Your task to perform on an android device: Do I have any events today? Image 0: 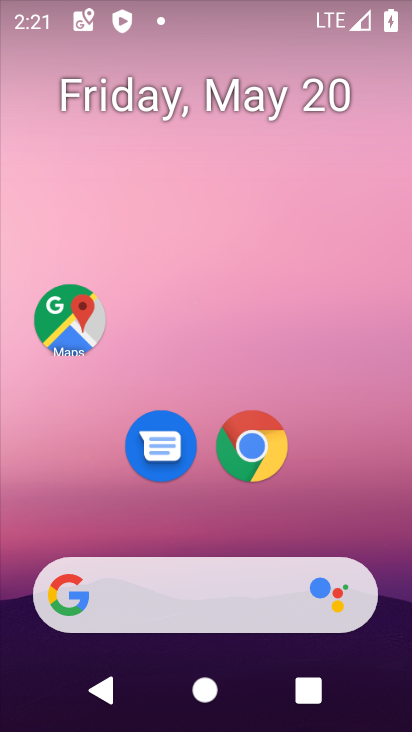
Step 0: drag from (365, 529) to (385, 16)
Your task to perform on an android device: Do I have any events today? Image 1: 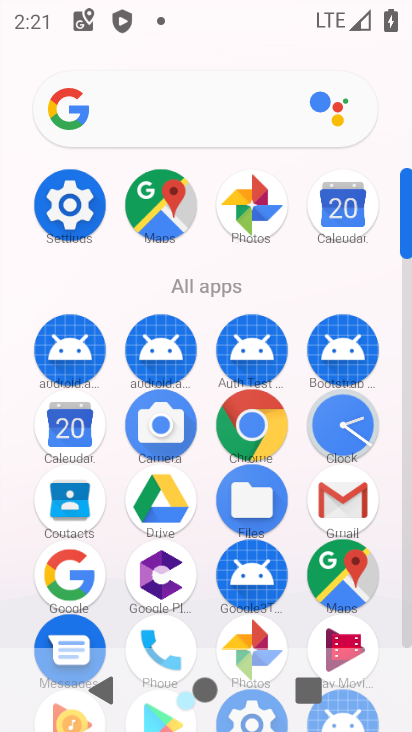
Step 1: click (343, 218)
Your task to perform on an android device: Do I have any events today? Image 2: 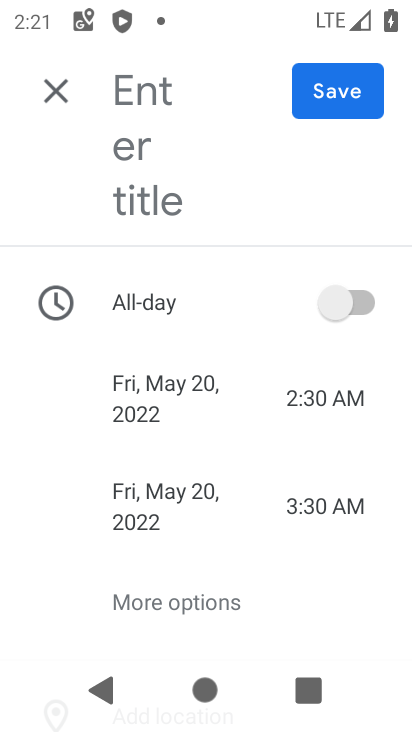
Step 2: click (56, 91)
Your task to perform on an android device: Do I have any events today? Image 3: 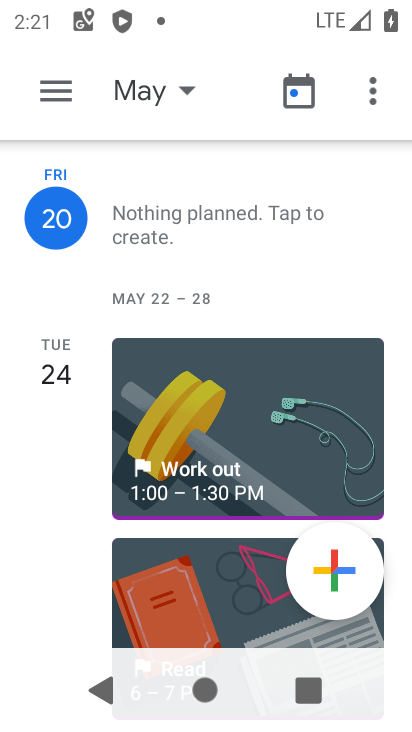
Step 3: click (195, 212)
Your task to perform on an android device: Do I have any events today? Image 4: 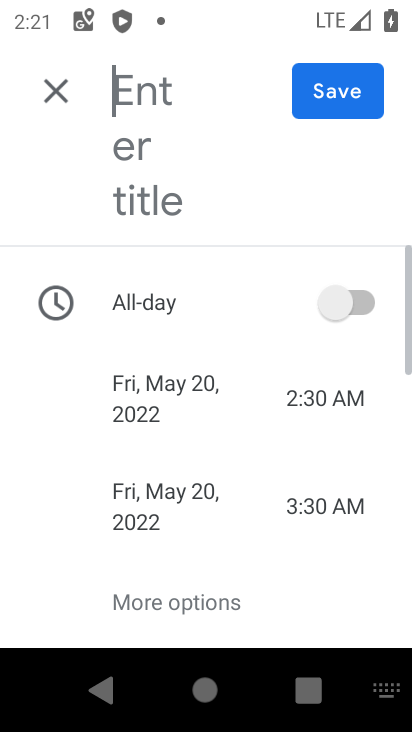
Step 4: task complete